Your task to perform on an android device: open app "Google Duo" (install if not already installed) Image 0: 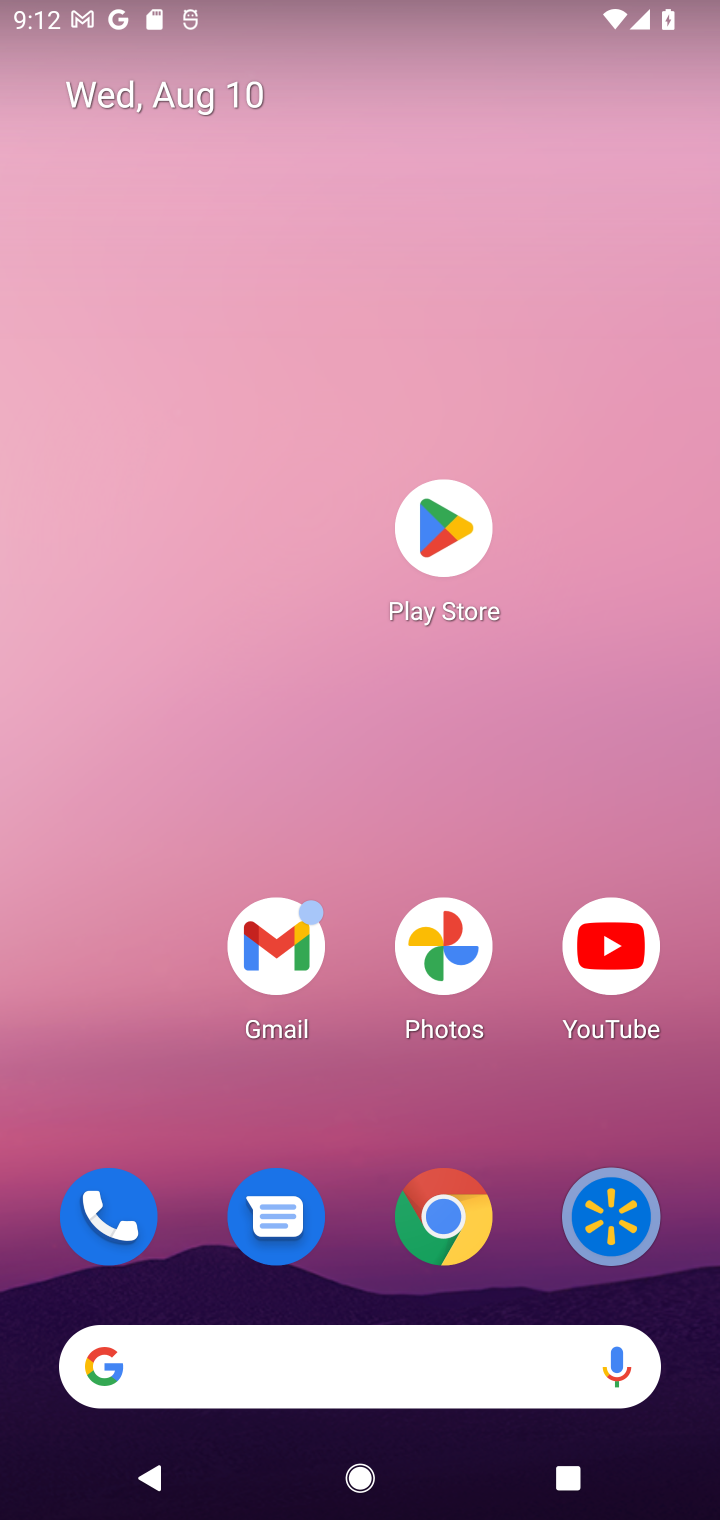
Step 0: press home button
Your task to perform on an android device: open app "Google Duo" (install if not already installed) Image 1: 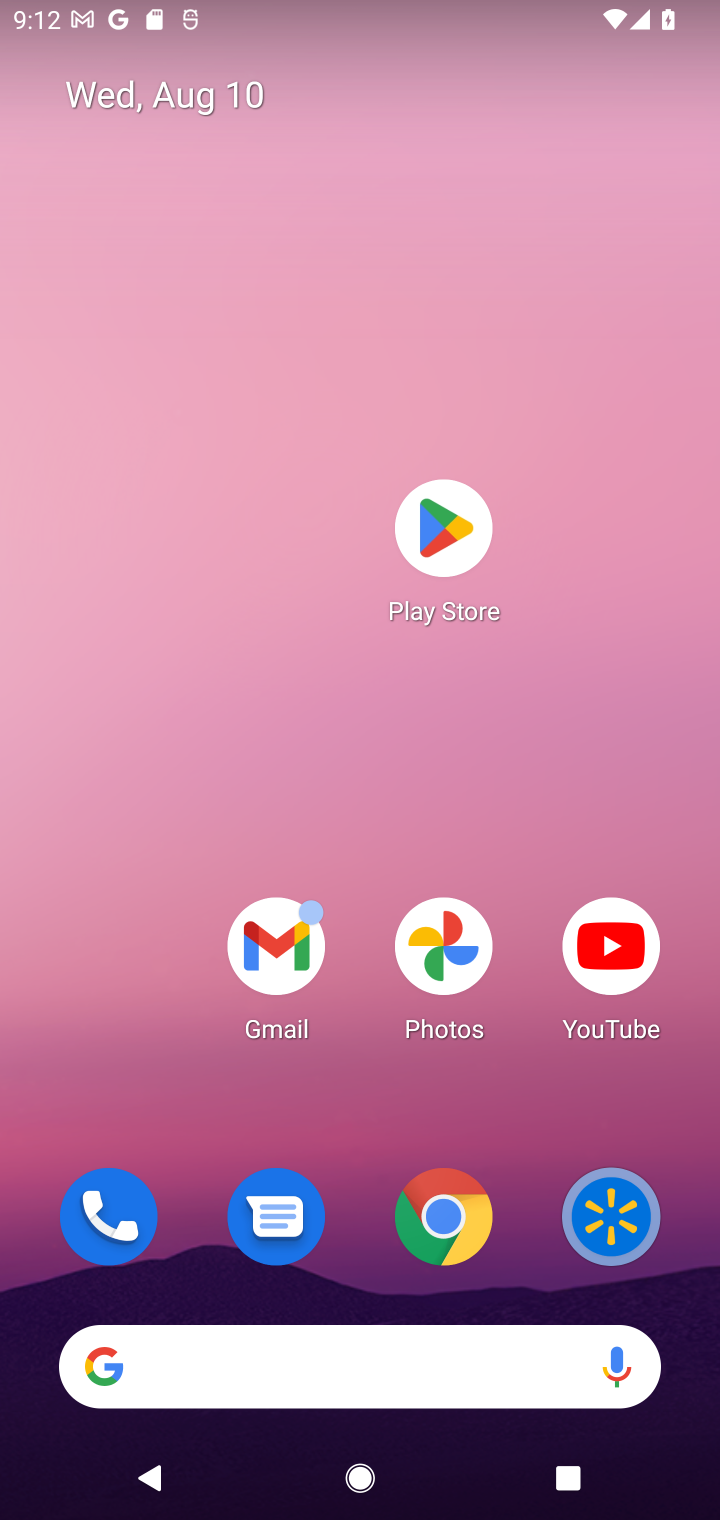
Step 1: click (439, 529)
Your task to perform on an android device: open app "Google Duo" (install if not already installed) Image 2: 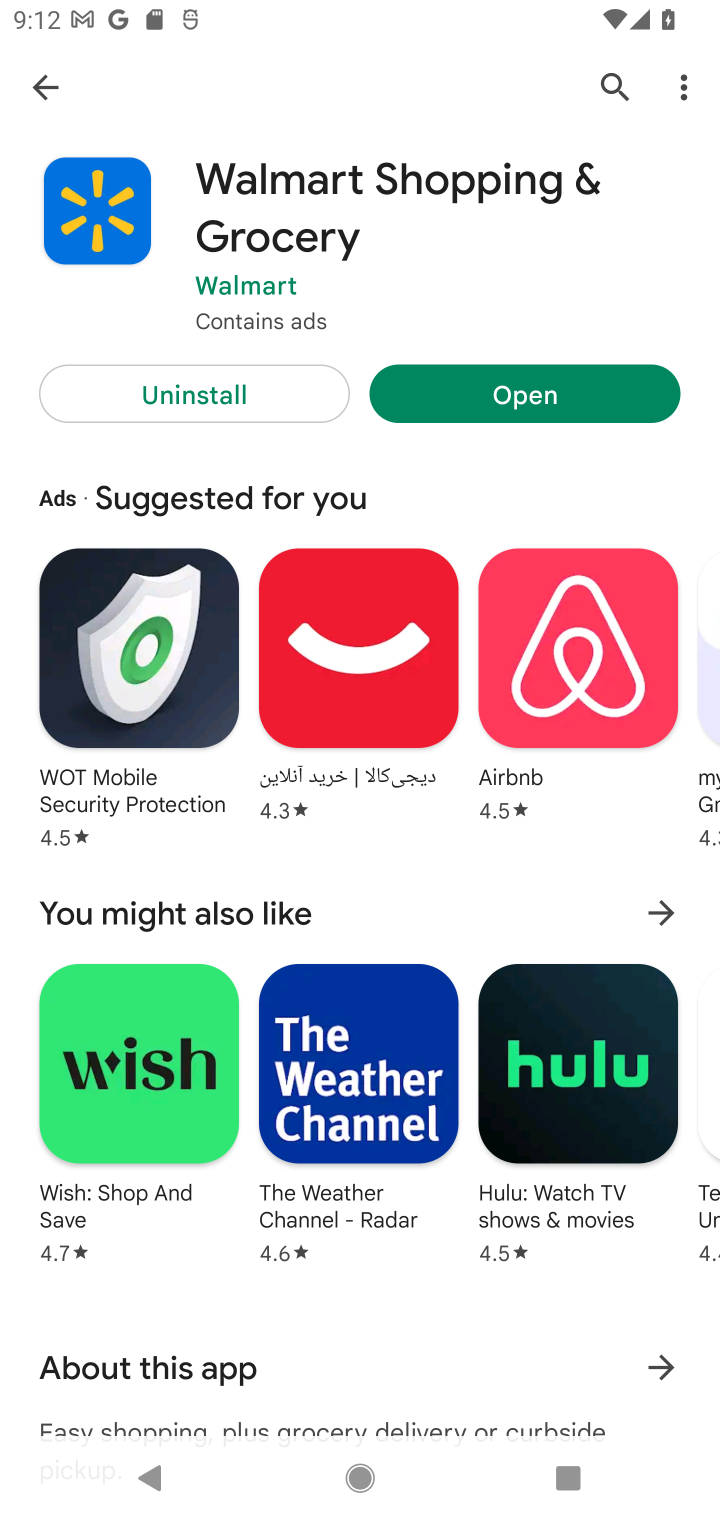
Step 2: click (613, 71)
Your task to perform on an android device: open app "Google Duo" (install if not already installed) Image 3: 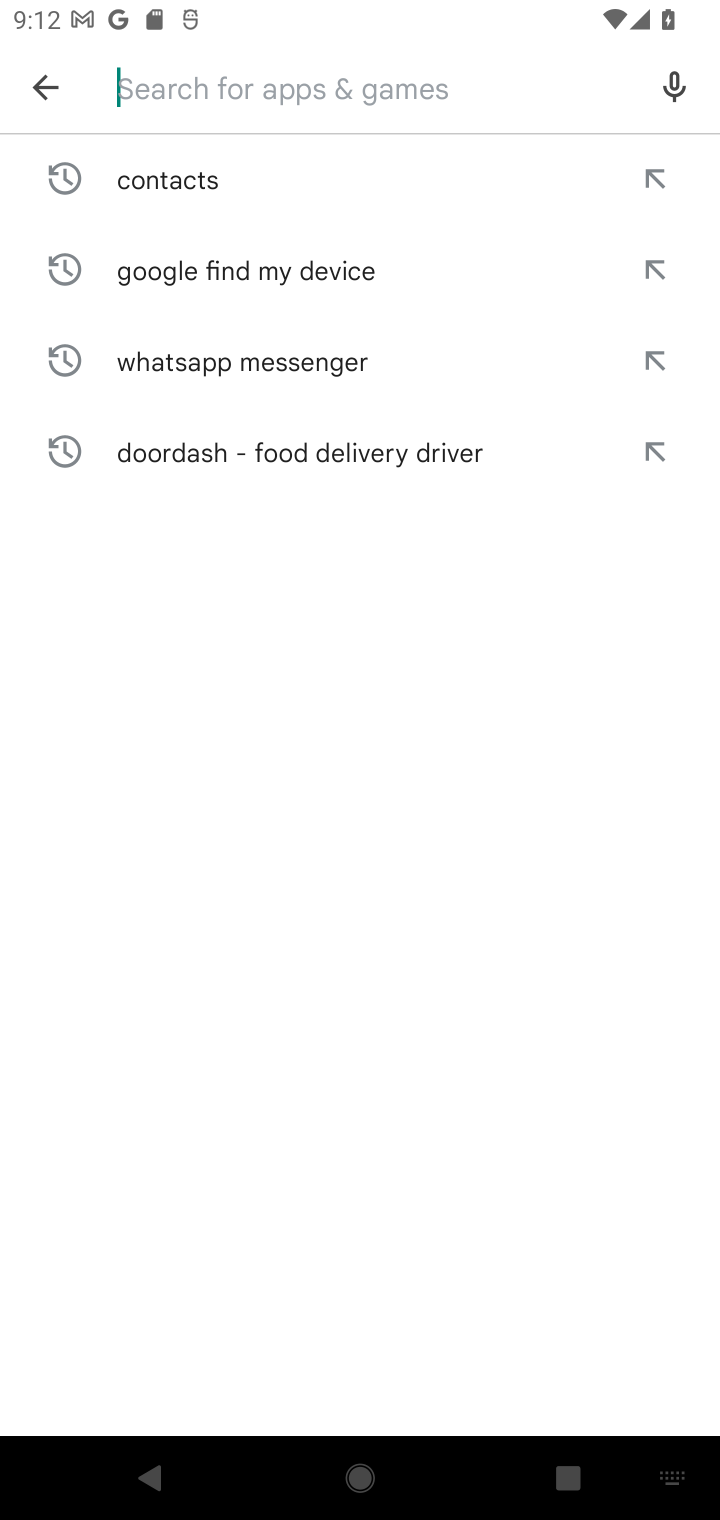
Step 3: type "Google Duo"
Your task to perform on an android device: open app "Google Duo" (install if not already installed) Image 4: 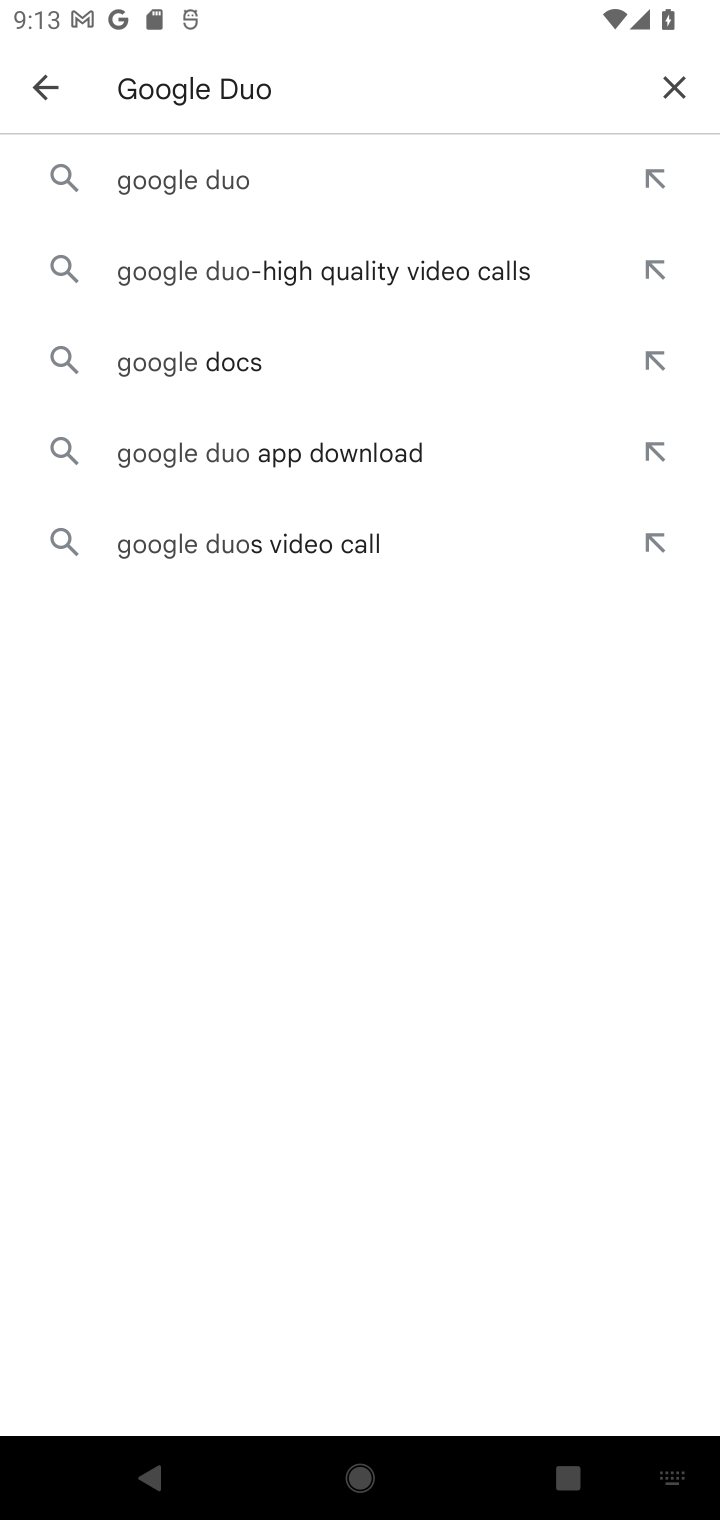
Step 4: click (219, 189)
Your task to perform on an android device: open app "Google Duo" (install if not already installed) Image 5: 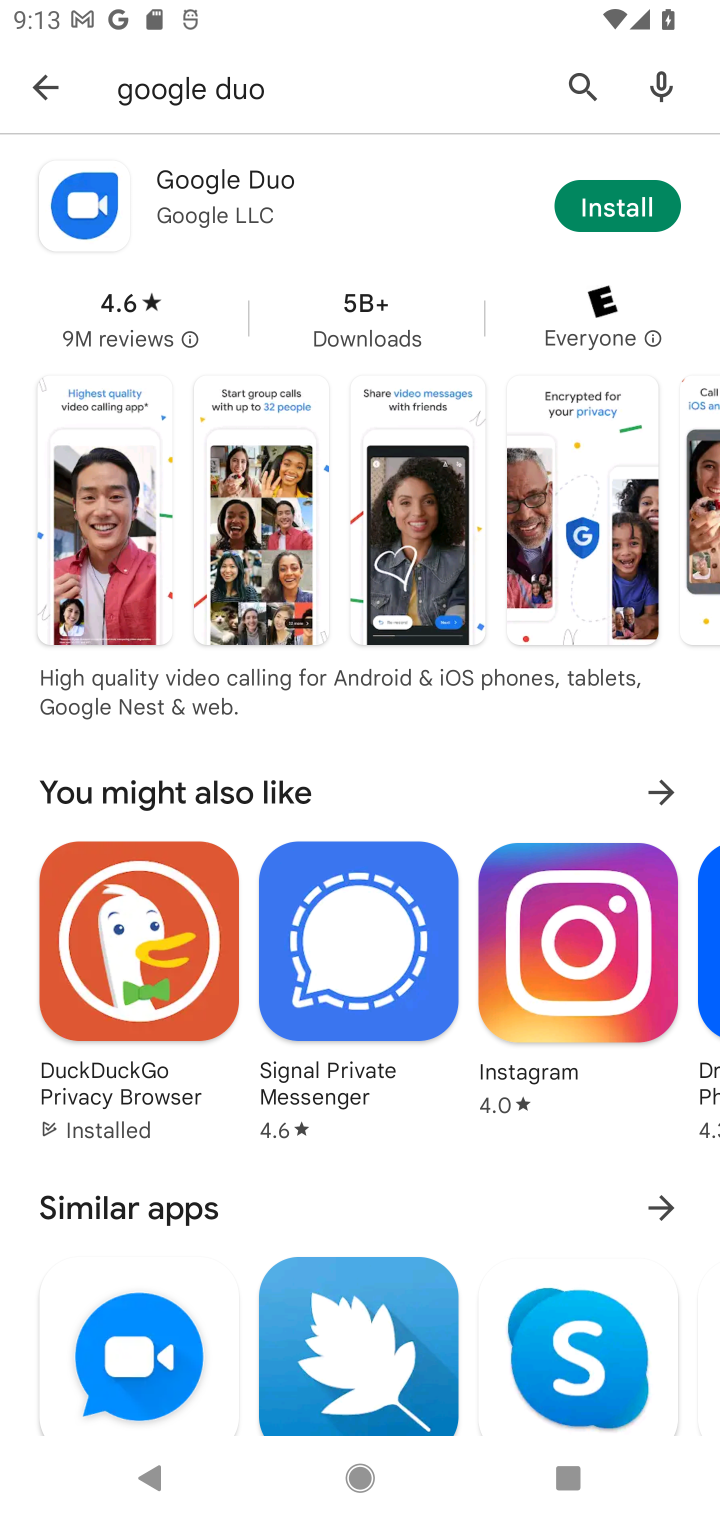
Step 5: click (632, 210)
Your task to perform on an android device: open app "Google Duo" (install if not already installed) Image 6: 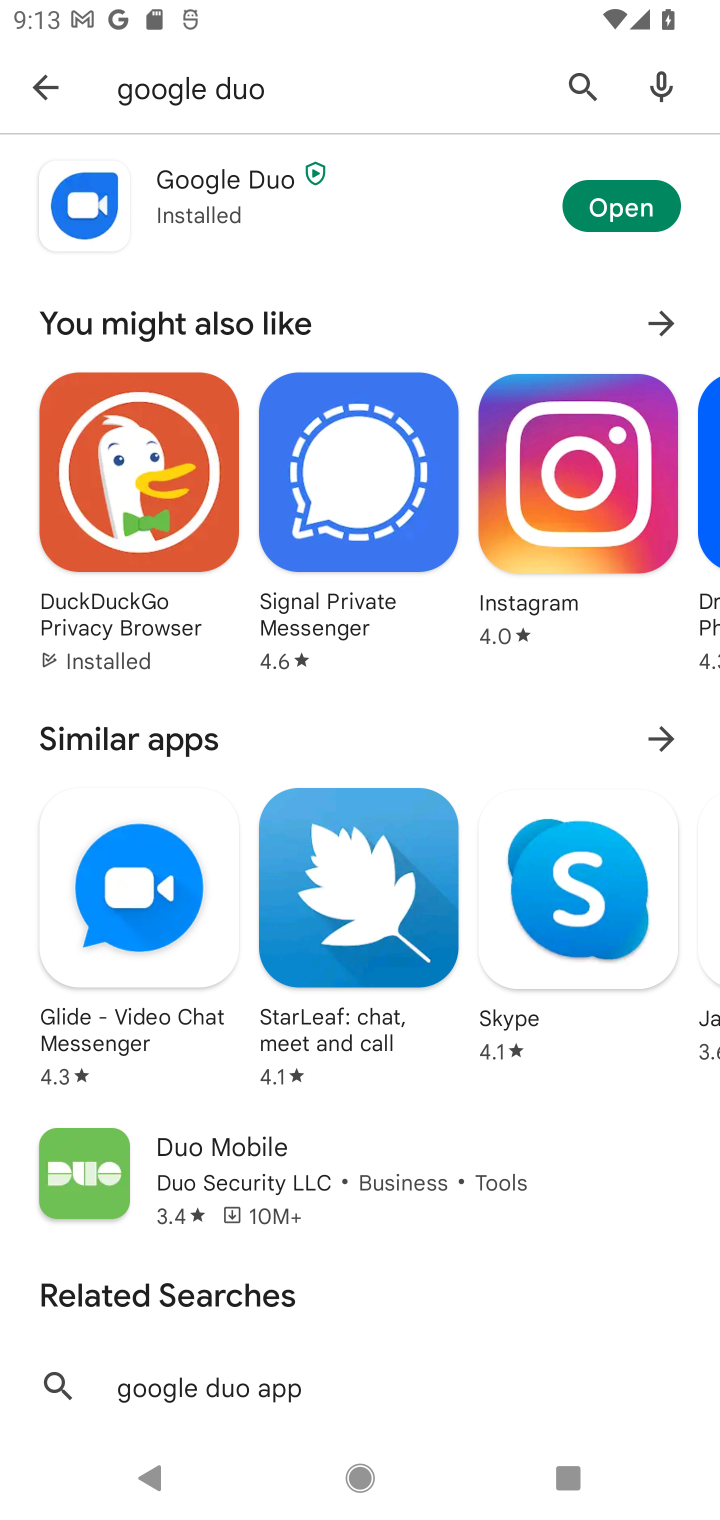
Step 6: click (652, 208)
Your task to perform on an android device: open app "Google Duo" (install if not already installed) Image 7: 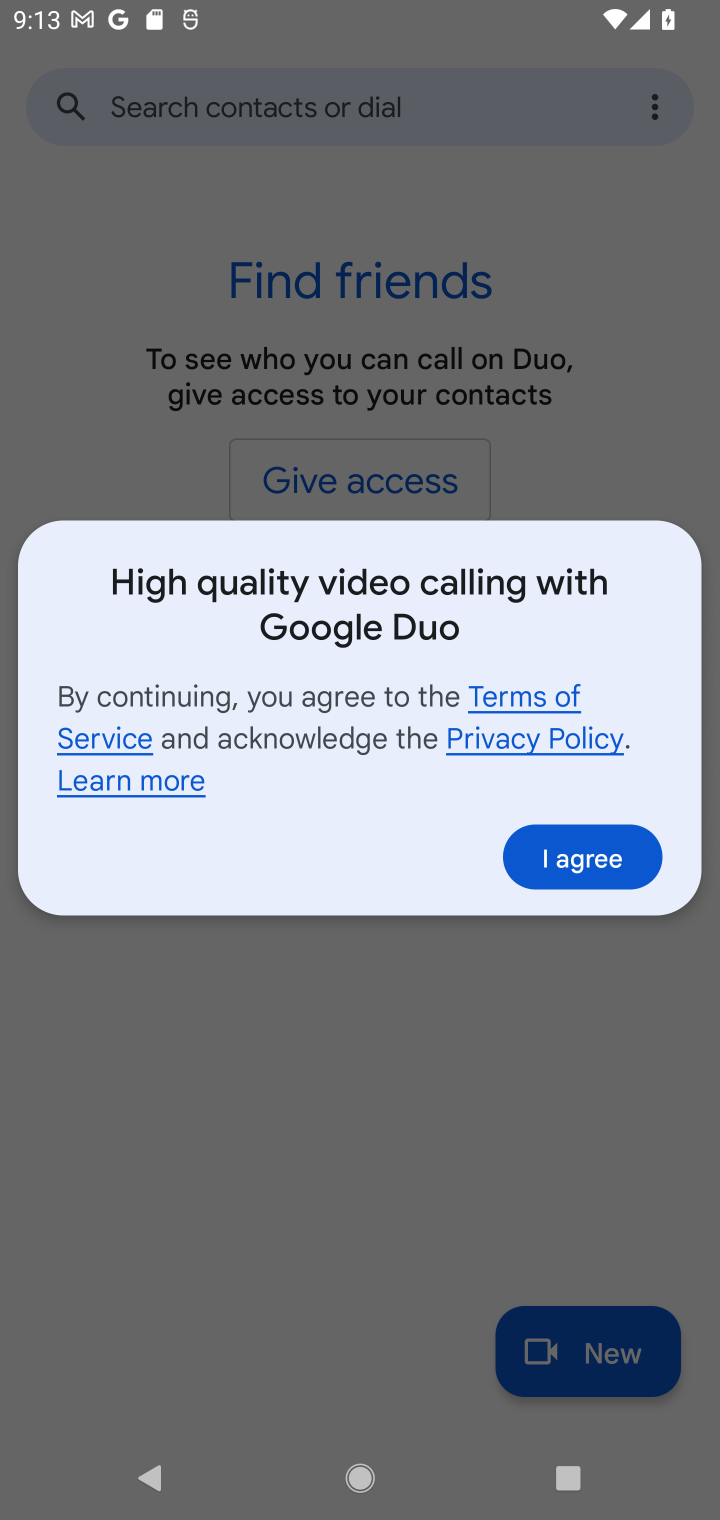
Step 7: task complete